Your task to perform on an android device: Open my contact list Image 0: 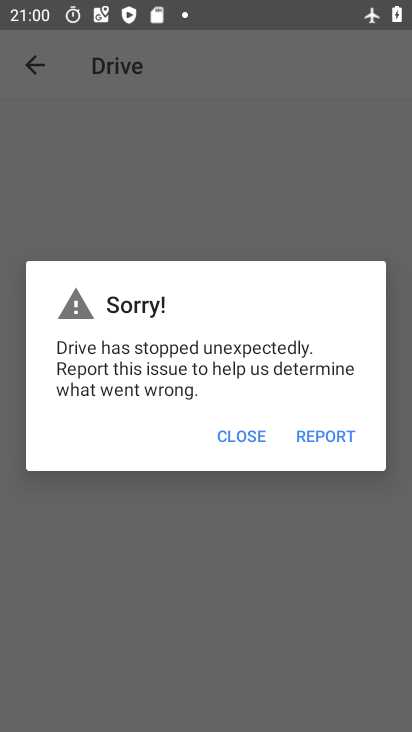
Step 0: press home button
Your task to perform on an android device: Open my contact list Image 1: 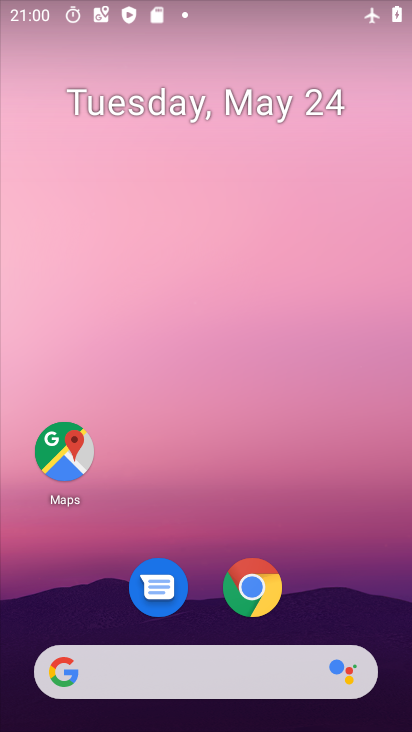
Step 1: drag from (332, 554) to (242, 79)
Your task to perform on an android device: Open my contact list Image 2: 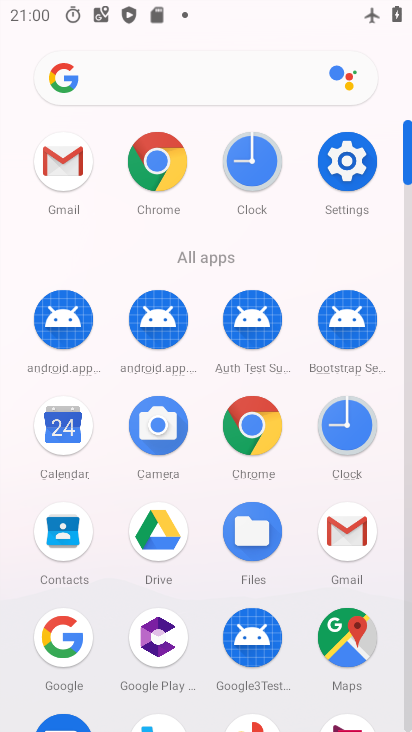
Step 2: drag from (2, 601) to (0, 240)
Your task to perform on an android device: Open my contact list Image 3: 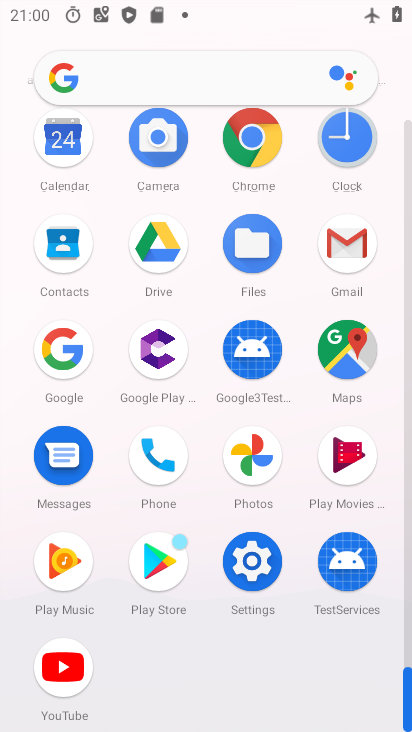
Step 3: click (156, 453)
Your task to perform on an android device: Open my contact list Image 4: 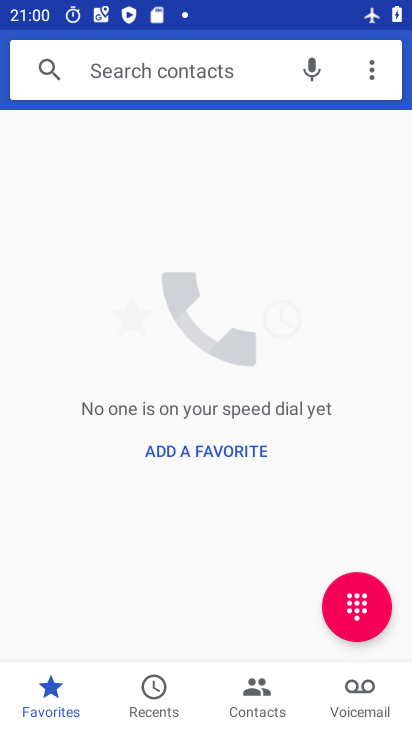
Step 4: click (251, 689)
Your task to perform on an android device: Open my contact list Image 5: 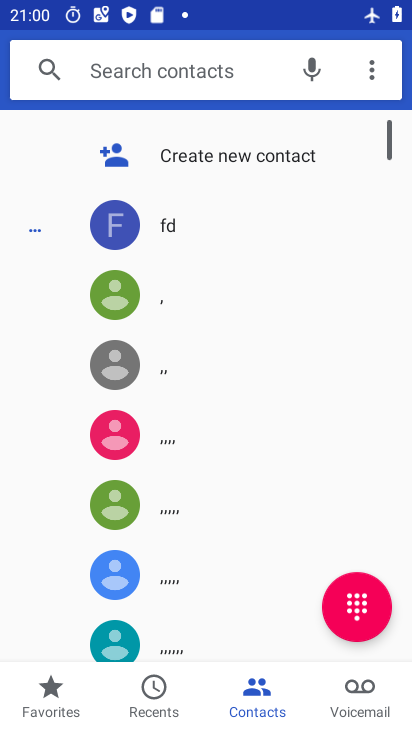
Step 5: task complete